Your task to perform on an android device: add a contact Image 0: 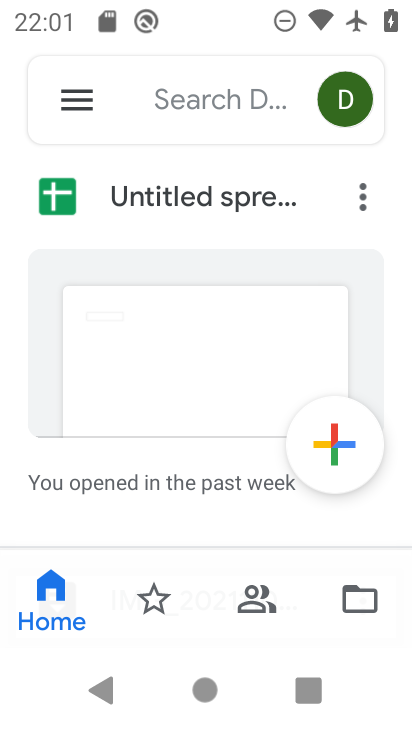
Step 0: press home button
Your task to perform on an android device: add a contact Image 1: 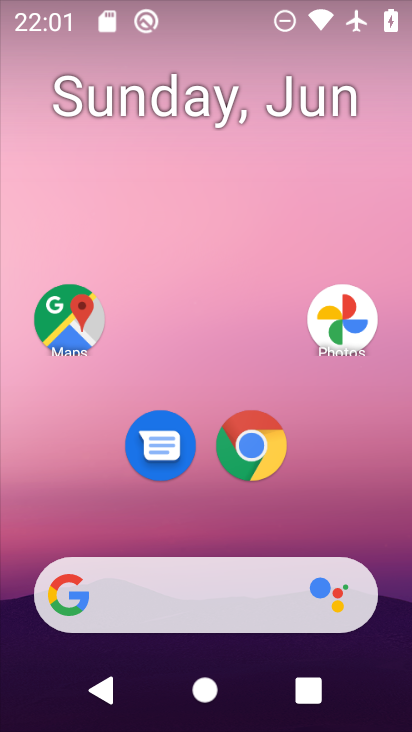
Step 1: drag from (347, 512) to (362, 131)
Your task to perform on an android device: add a contact Image 2: 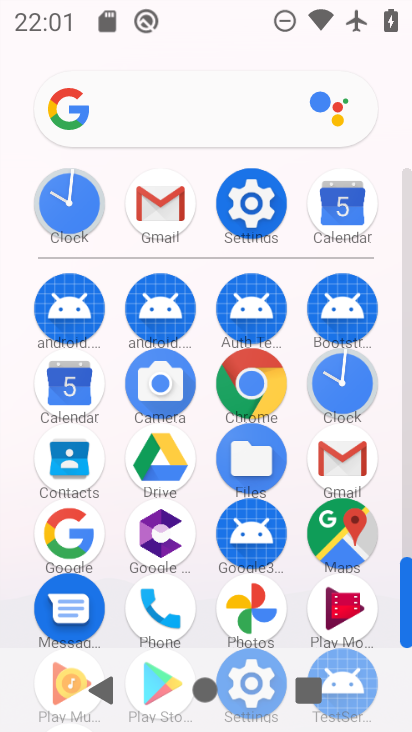
Step 2: click (68, 453)
Your task to perform on an android device: add a contact Image 3: 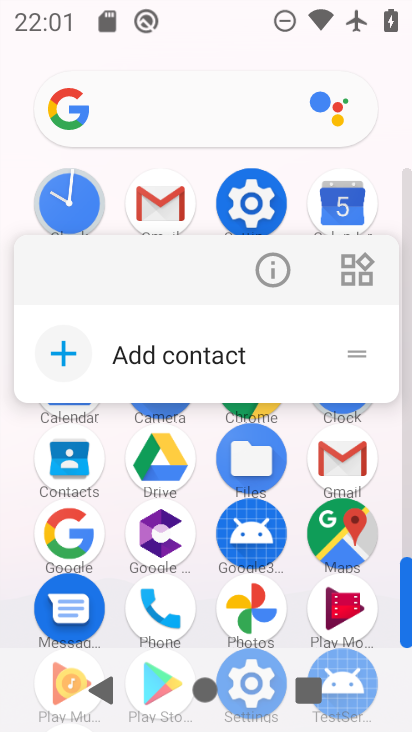
Step 3: click (158, 352)
Your task to perform on an android device: add a contact Image 4: 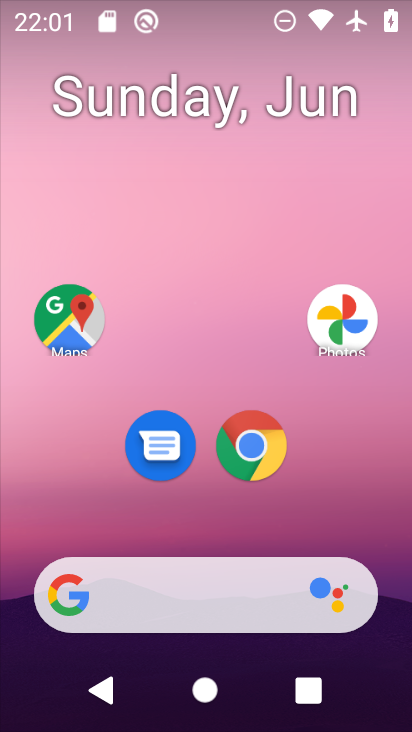
Step 4: drag from (321, 521) to (275, 165)
Your task to perform on an android device: add a contact Image 5: 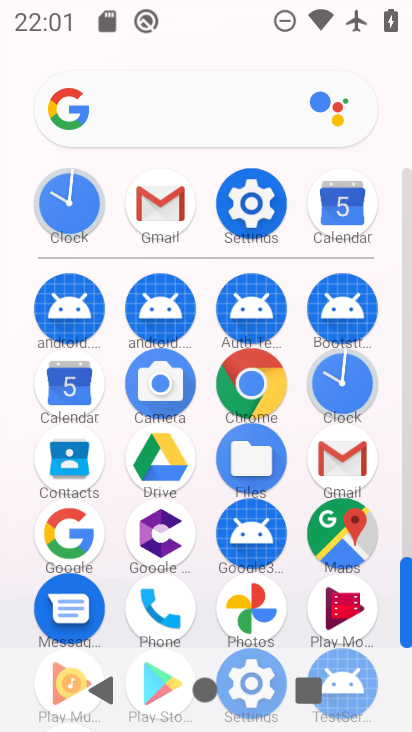
Step 5: click (87, 389)
Your task to perform on an android device: add a contact Image 6: 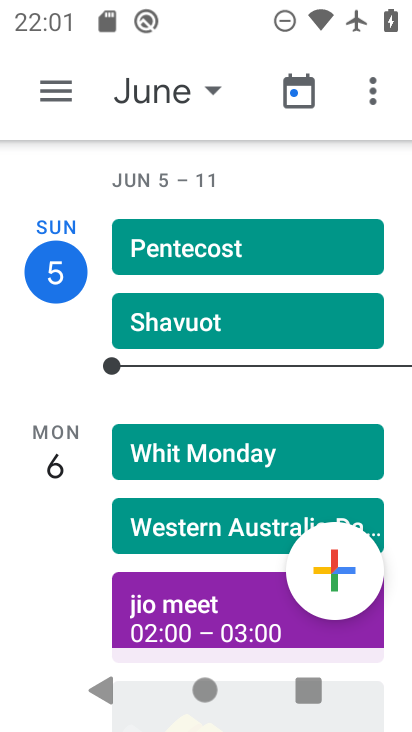
Step 6: press home button
Your task to perform on an android device: add a contact Image 7: 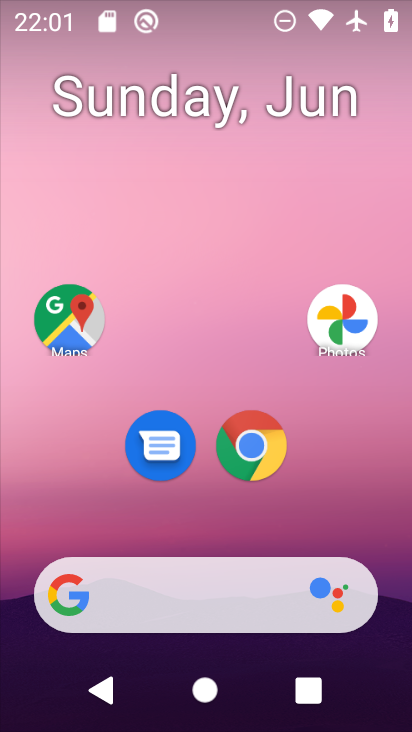
Step 7: drag from (338, 511) to (379, 87)
Your task to perform on an android device: add a contact Image 8: 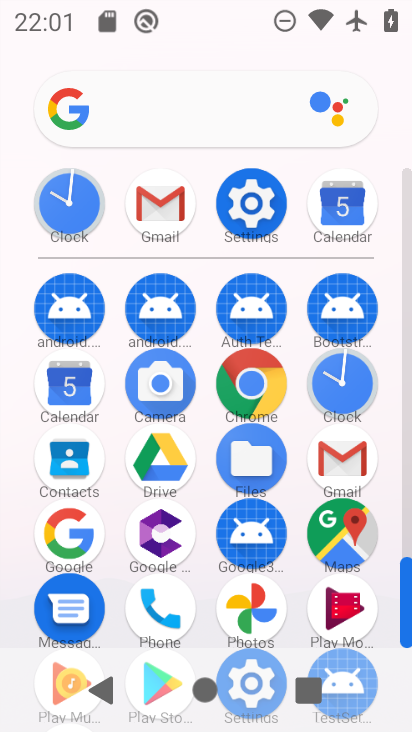
Step 8: click (74, 458)
Your task to perform on an android device: add a contact Image 9: 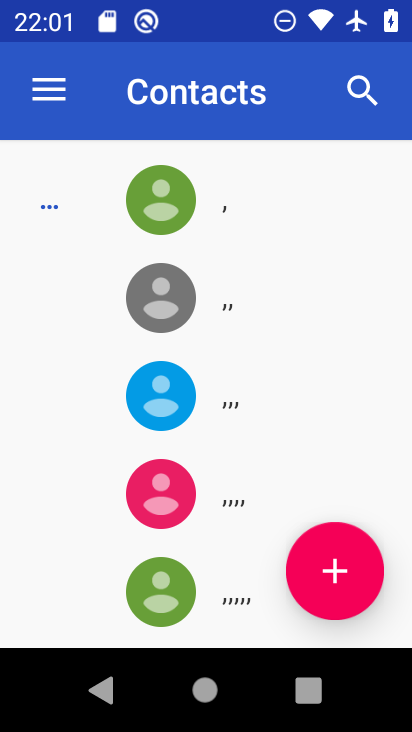
Step 9: click (326, 577)
Your task to perform on an android device: add a contact Image 10: 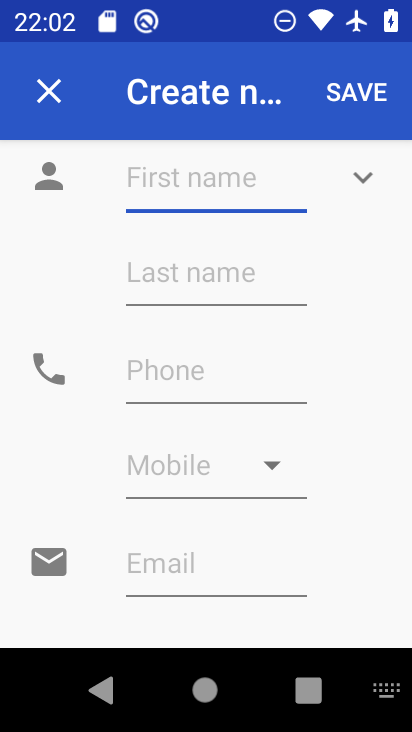
Step 10: type "gfgff"
Your task to perform on an android device: add a contact Image 11: 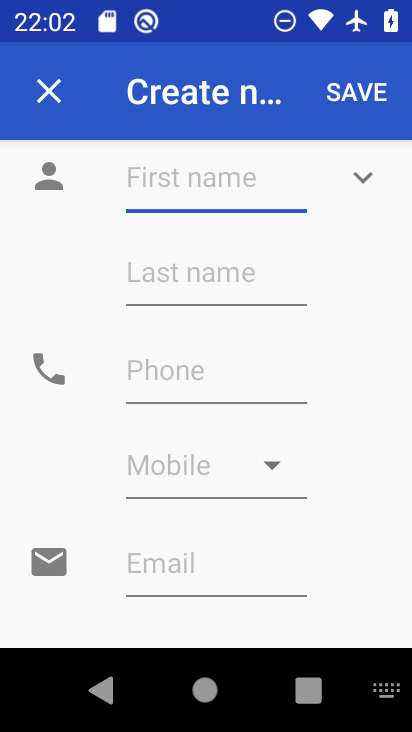
Step 11: click (225, 381)
Your task to perform on an android device: add a contact Image 12: 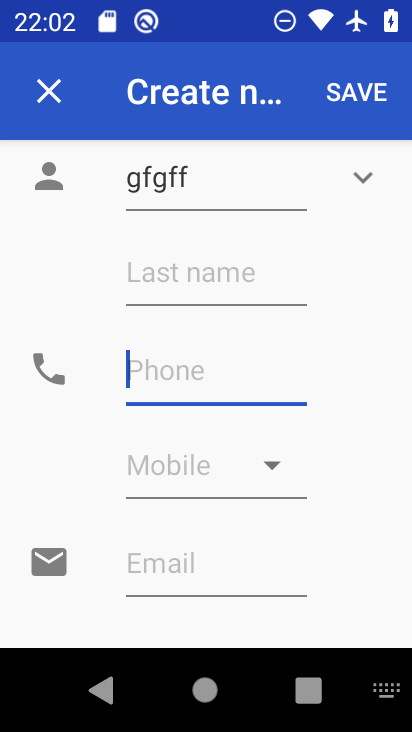
Step 12: click (228, 377)
Your task to perform on an android device: add a contact Image 13: 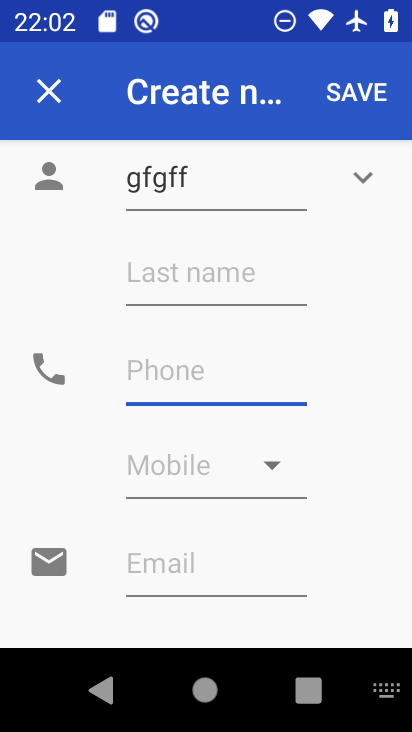
Step 13: type "55555"
Your task to perform on an android device: add a contact Image 14: 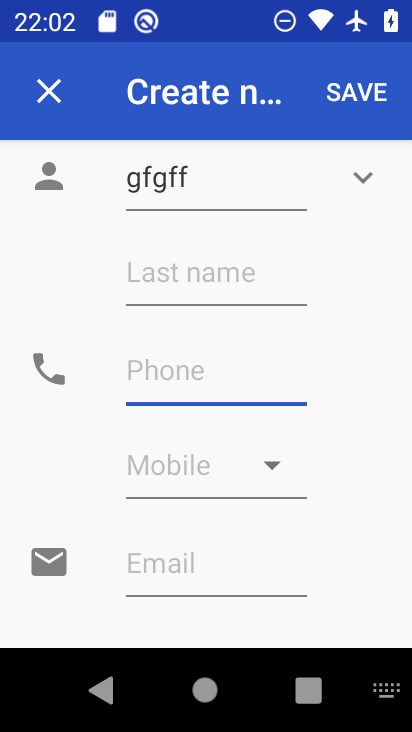
Step 14: click (257, 382)
Your task to perform on an android device: add a contact Image 15: 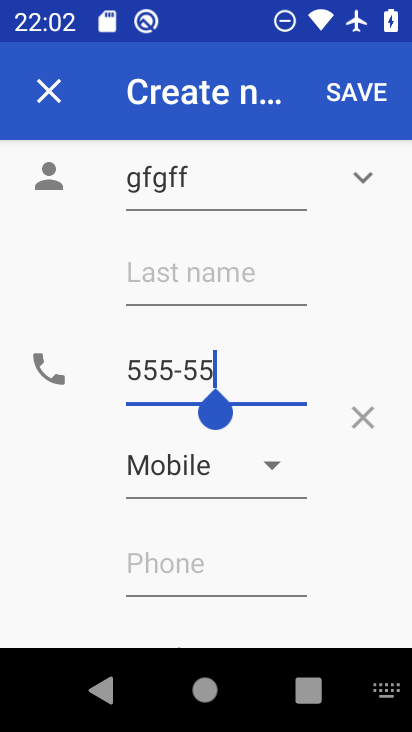
Step 15: click (356, 99)
Your task to perform on an android device: add a contact Image 16: 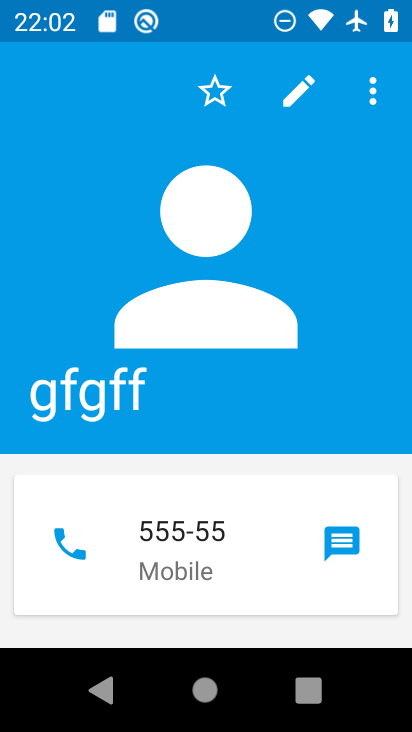
Step 16: press home button
Your task to perform on an android device: add a contact Image 17: 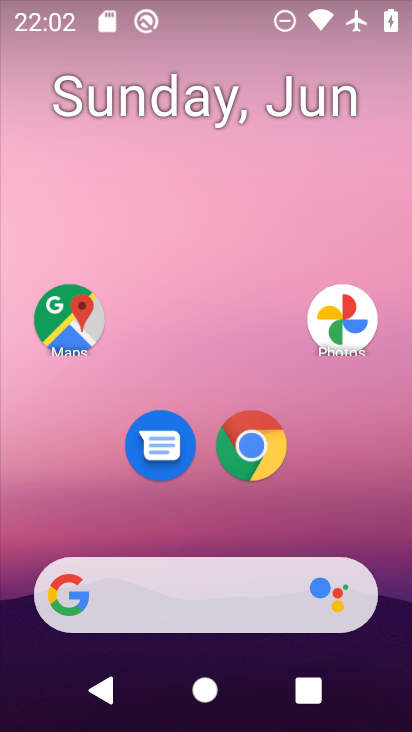
Step 17: press home button
Your task to perform on an android device: add a contact Image 18: 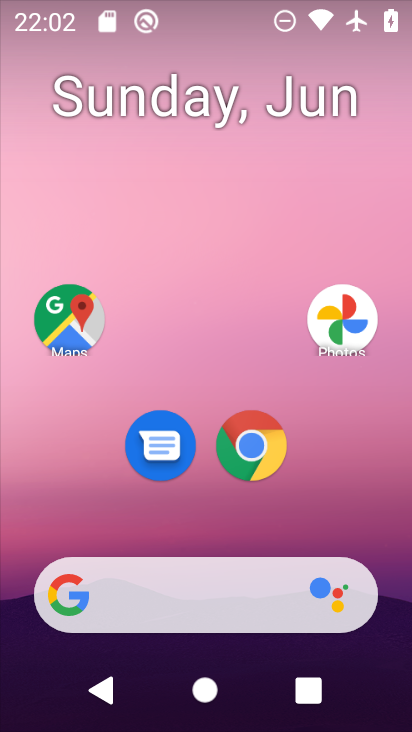
Step 18: drag from (302, 524) to (296, 139)
Your task to perform on an android device: add a contact Image 19: 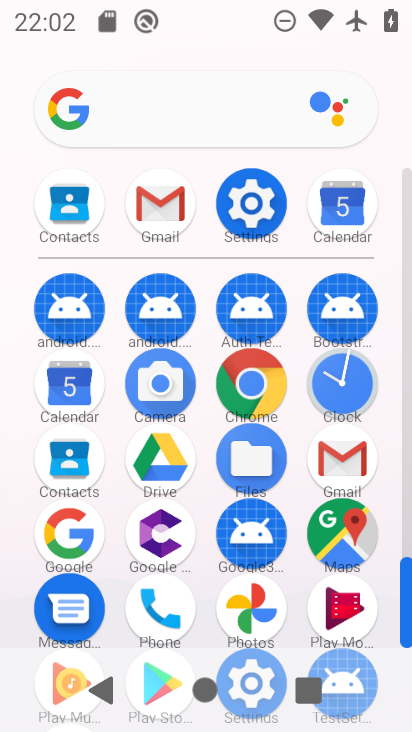
Step 19: click (48, 460)
Your task to perform on an android device: add a contact Image 20: 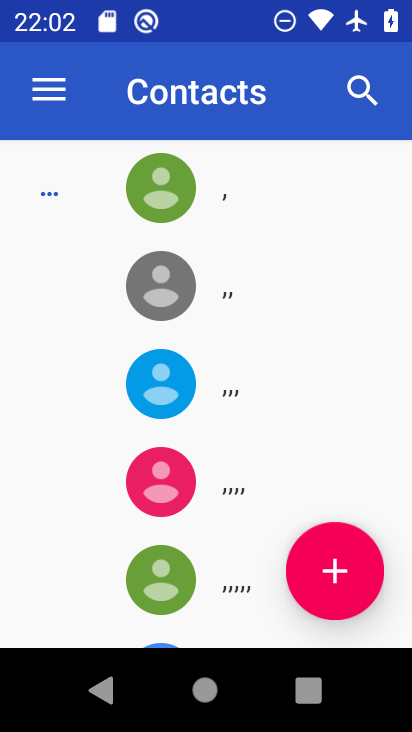
Step 20: click (336, 566)
Your task to perform on an android device: add a contact Image 21: 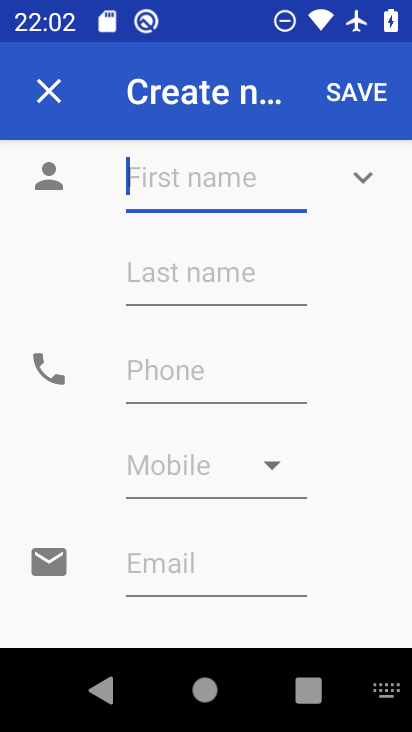
Step 21: click (256, 185)
Your task to perform on an android device: add a contact Image 22: 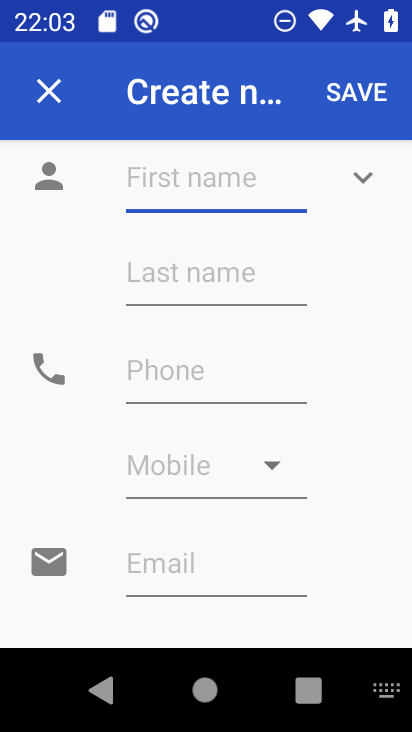
Step 22: type "htthhththrt"
Your task to perform on an android device: add a contact Image 23: 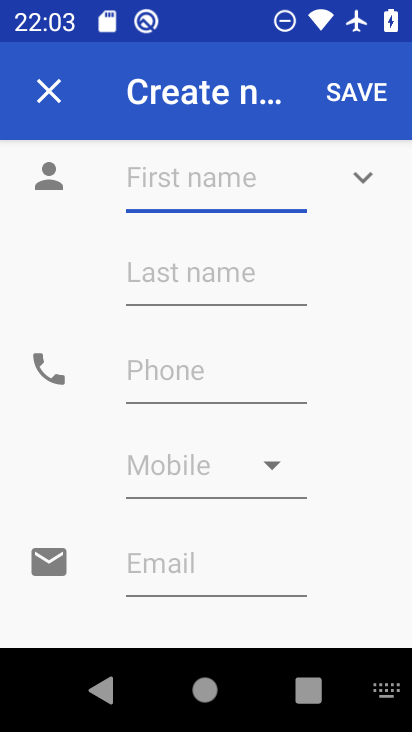
Step 23: click (216, 376)
Your task to perform on an android device: add a contact Image 24: 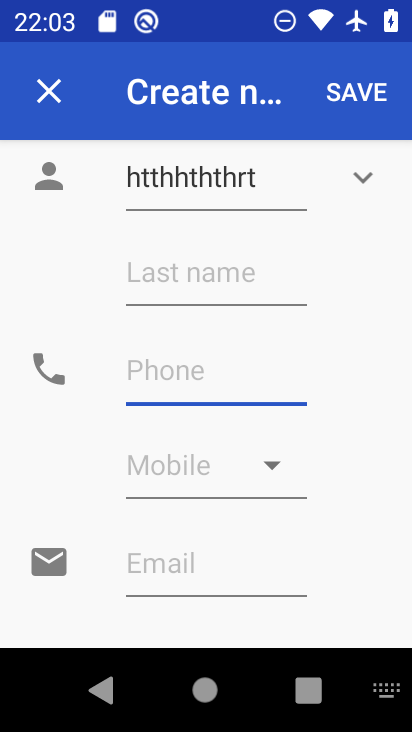
Step 24: click (160, 383)
Your task to perform on an android device: add a contact Image 25: 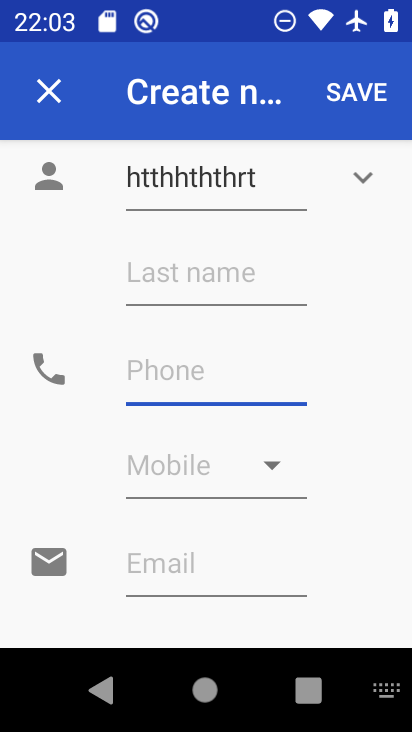
Step 25: type "3323423432432"
Your task to perform on an android device: add a contact Image 26: 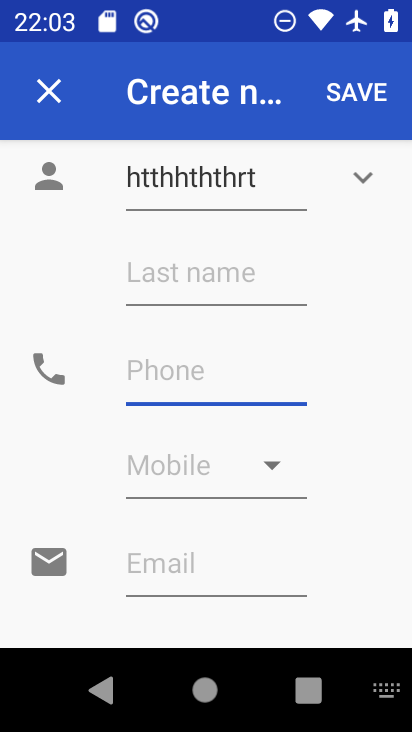
Step 26: click (243, 390)
Your task to perform on an android device: add a contact Image 27: 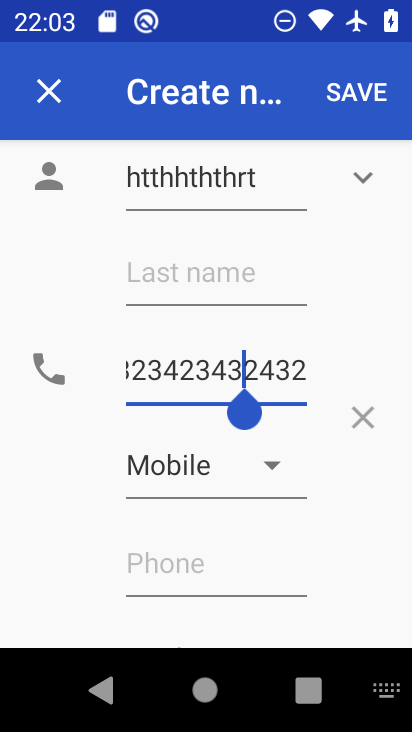
Step 27: click (369, 100)
Your task to perform on an android device: add a contact Image 28: 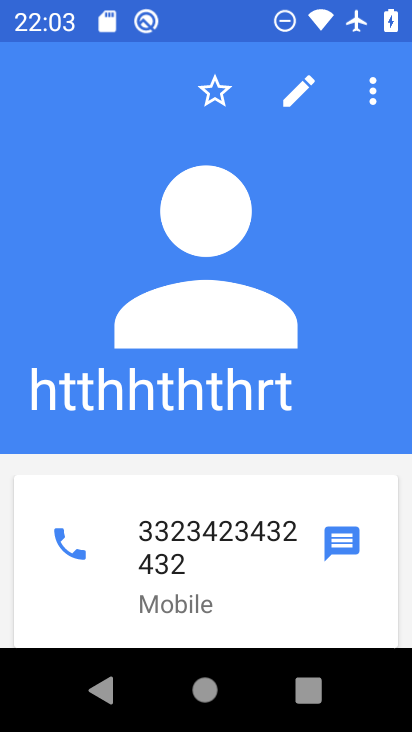
Step 28: task complete